Your task to perform on an android device: turn on airplane mode Image 0: 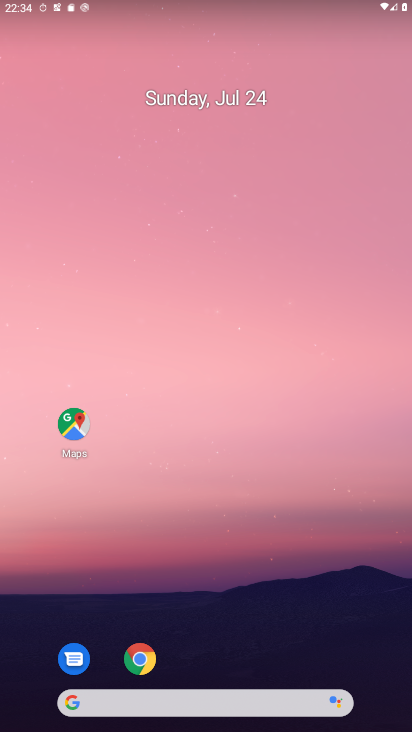
Step 0: drag from (216, 726) to (194, 115)
Your task to perform on an android device: turn on airplane mode Image 1: 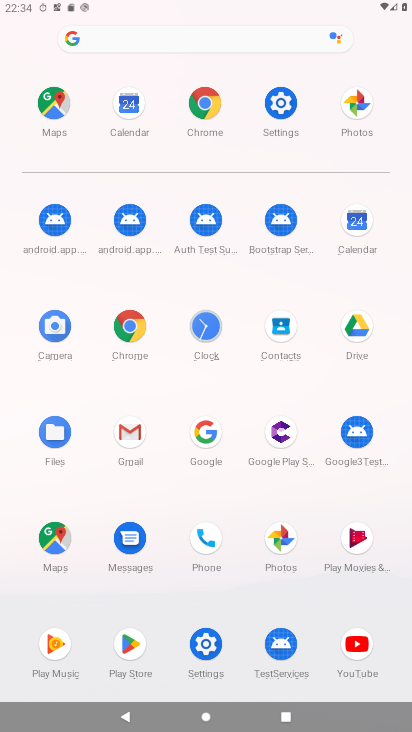
Step 1: click (280, 93)
Your task to perform on an android device: turn on airplane mode Image 2: 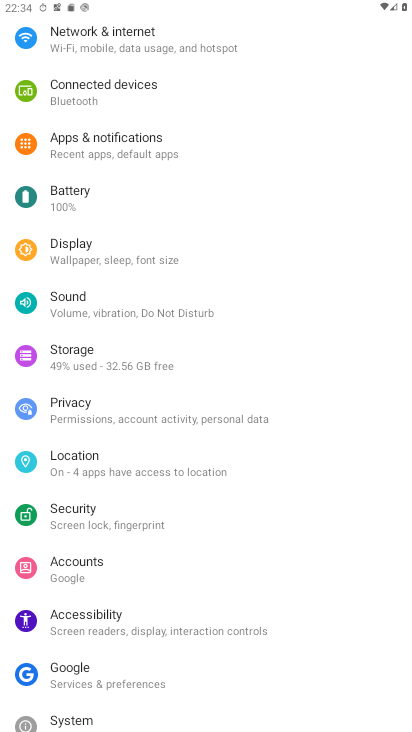
Step 2: drag from (240, 99) to (234, 699)
Your task to perform on an android device: turn on airplane mode Image 3: 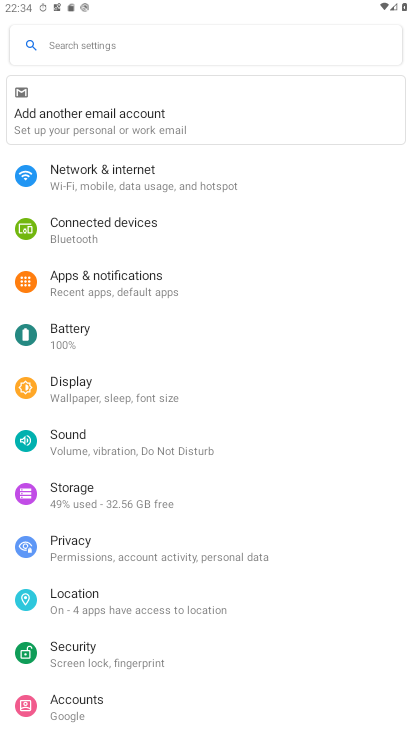
Step 3: click (108, 180)
Your task to perform on an android device: turn on airplane mode Image 4: 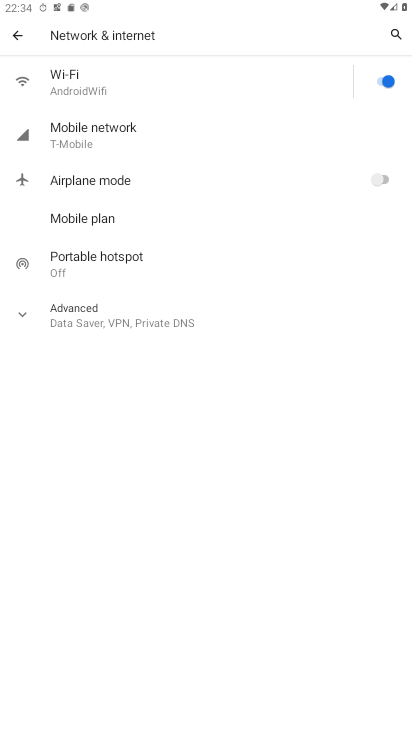
Step 4: click (384, 179)
Your task to perform on an android device: turn on airplane mode Image 5: 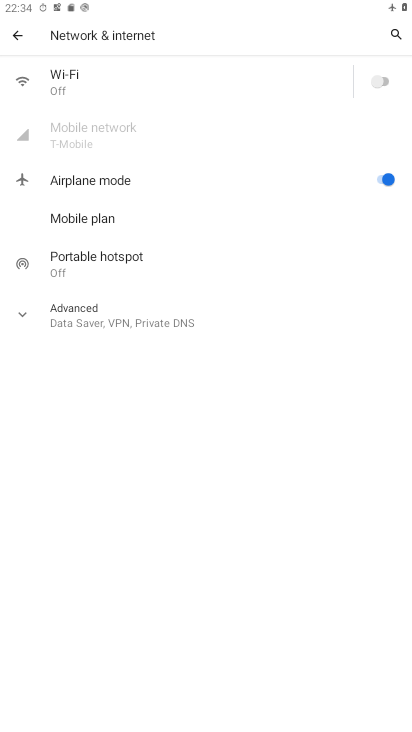
Step 5: task complete